Your task to perform on an android device: Open internet settings Image 0: 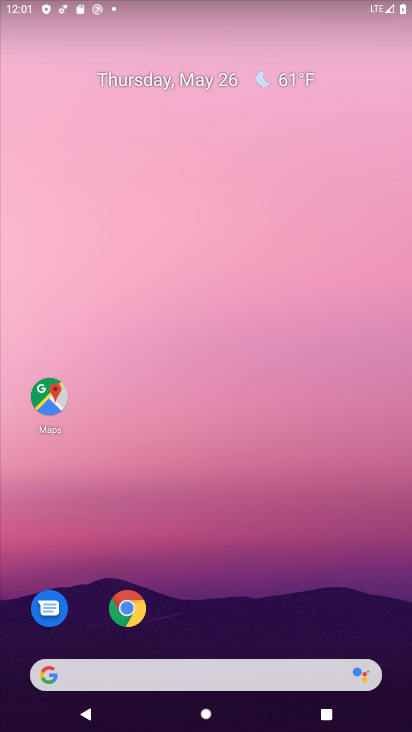
Step 0: drag from (372, 630) to (322, 157)
Your task to perform on an android device: Open internet settings Image 1: 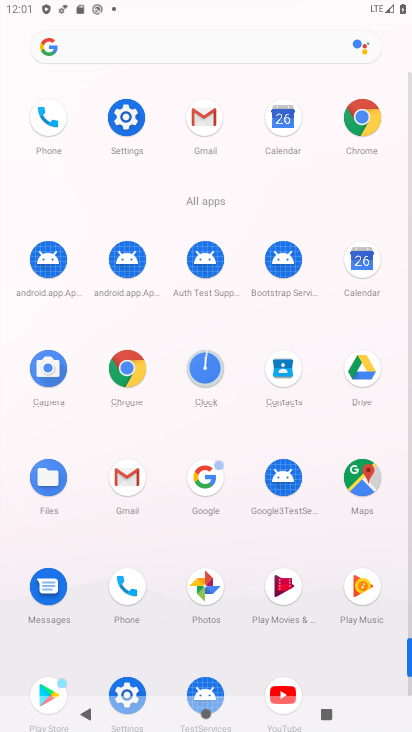
Step 1: click (126, 695)
Your task to perform on an android device: Open internet settings Image 2: 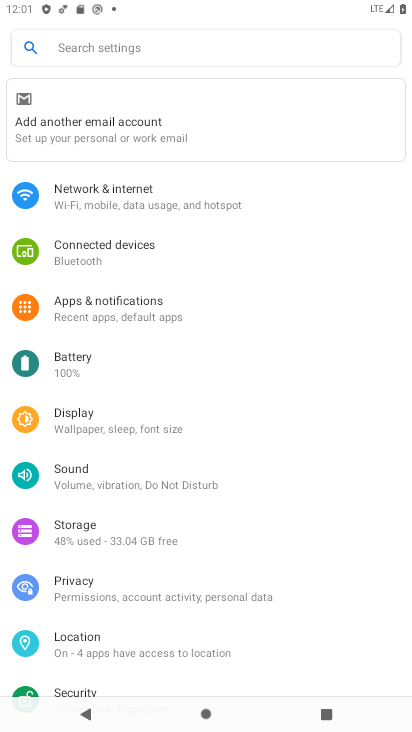
Step 2: click (90, 189)
Your task to perform on an android device: Open internet settings Image 3: 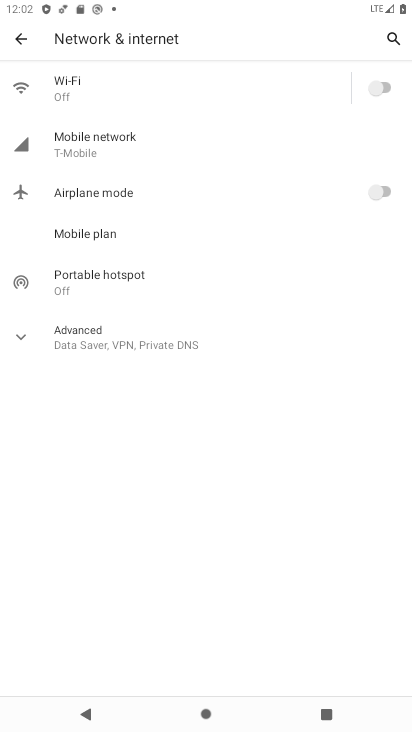
Step 3: click (17, 336)
Your task to perform on an android device: Open internet settings Image 4: 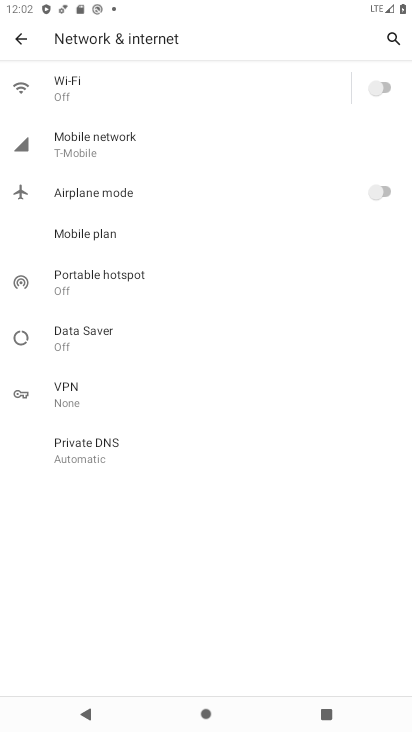
Step 4: task complete